Your task to perform on an android device: turn on notifications settings in the gmail app Image 0: 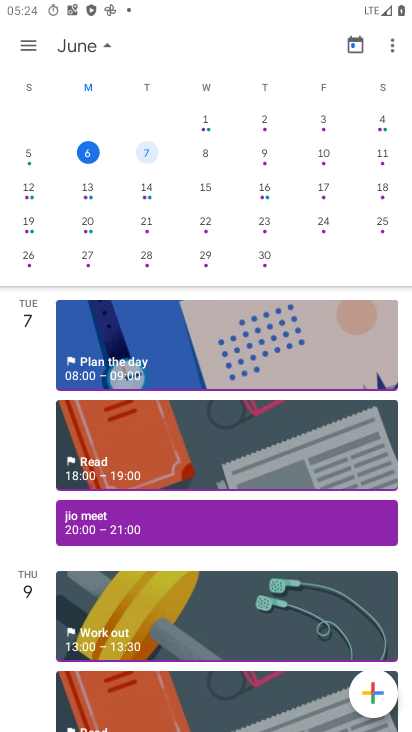
Step 0: press home button
Your task to perform on an android device: turn on notifications settings in the gmail app Image 1: 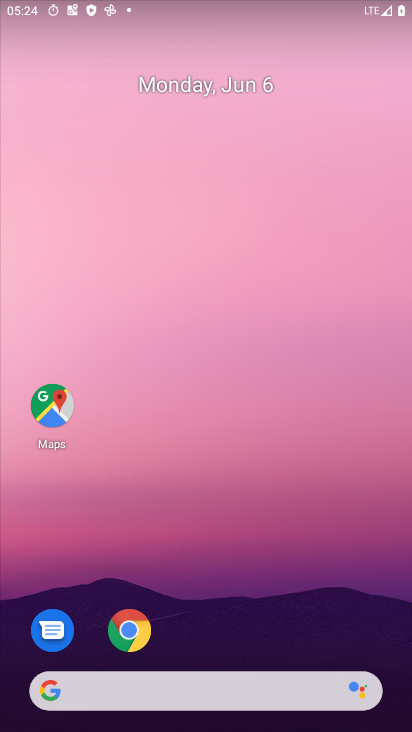
Step 1: drag from (288, 617) to (295, 49)
Your task to perform on an android device: turn on notifications settings in the gmail app Image 2: 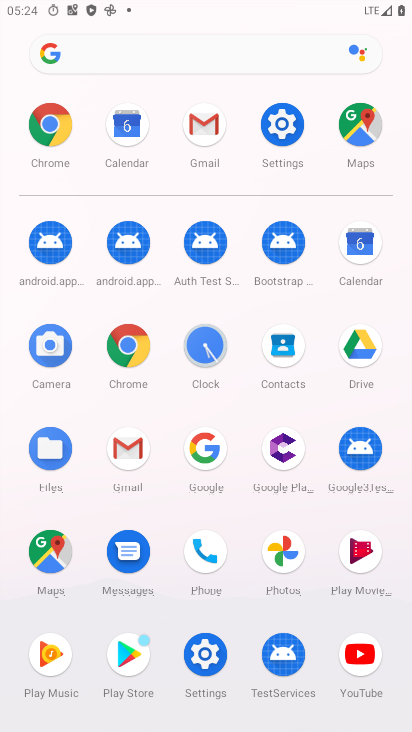
Step 2: click (124, 447)
Your task to perform on an android device: turn on notifications settings in the gmail app Image 3: 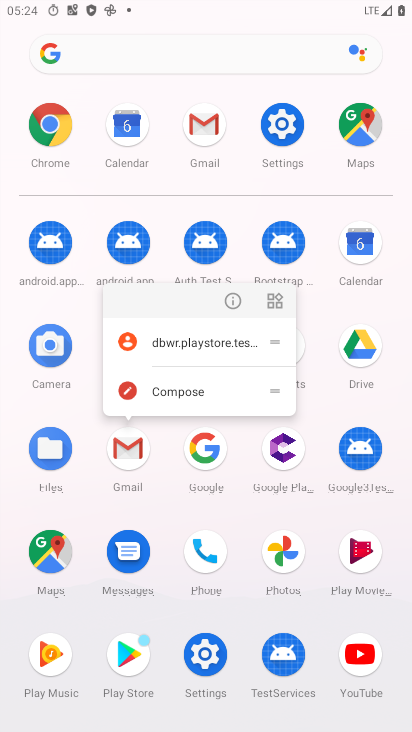
Step 3: click (231, 298)
Your task to perform on an android device: turn on notifications settings in the gmail app Image 4: 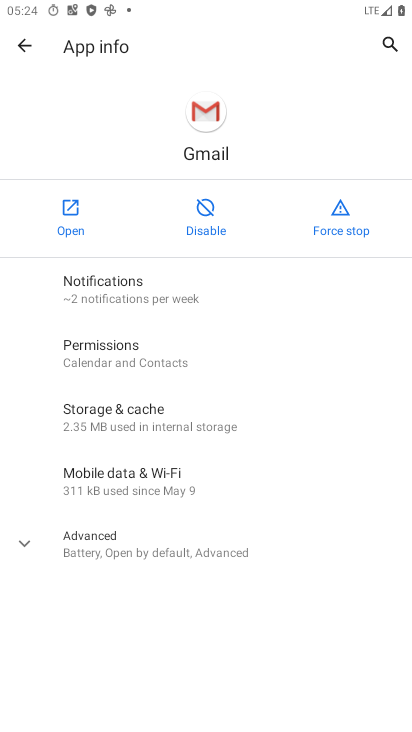
Step 4: click (168, 294)
Your task to perform on an android device: turn on notifications settings in the gmail app Image 5: 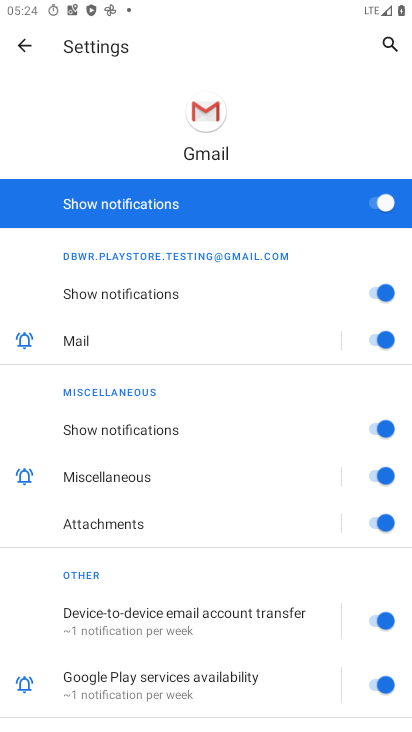
Step 5: task complete